Your task to perform on an android device: set an alarm Image 0: 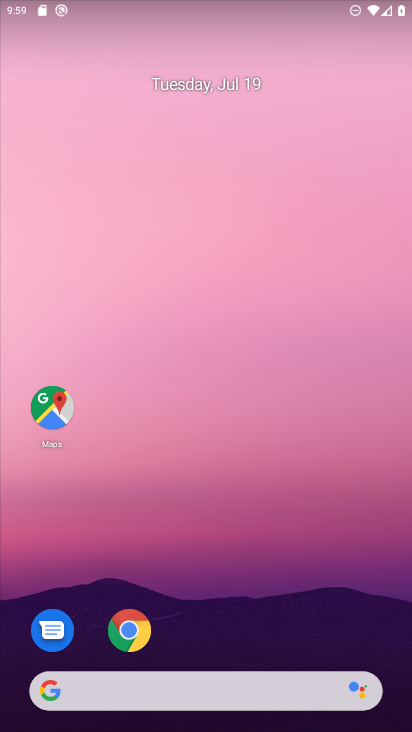
Step 0: drag from (163, 672) to (265, 148)
Your task to perform on an android device: set an alarm Image 1: 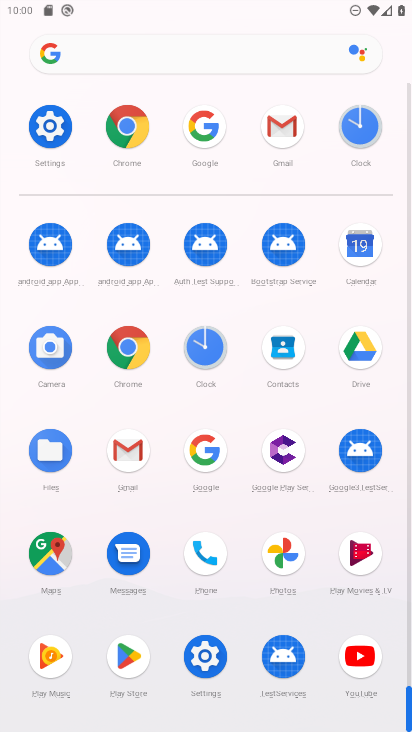
Step 1: click (355, 145)
Your task to perform on an android device: set an alarm Image 2: 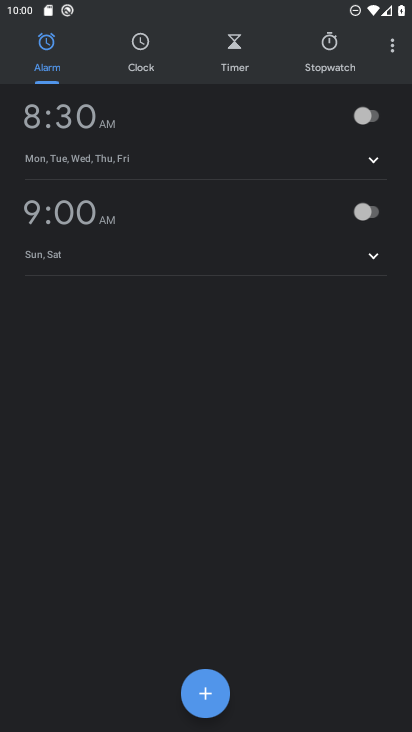
Step 2: click (216, 697)
Your task to perform on an android device: set an alarm Image 3: 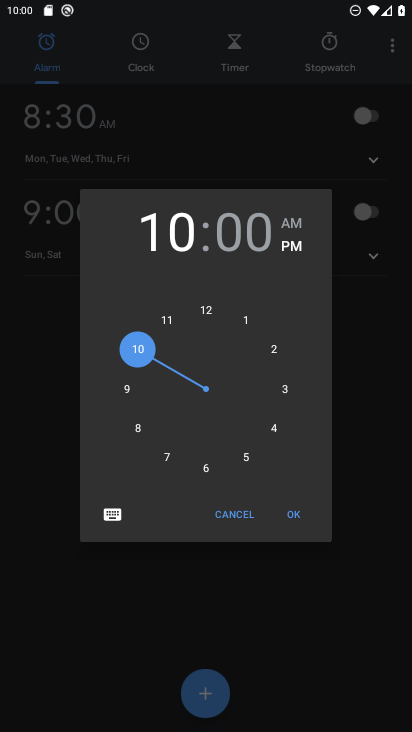
Step 3: click (295, 520)
Your task to perform on an android device: set an alarm Image 4: 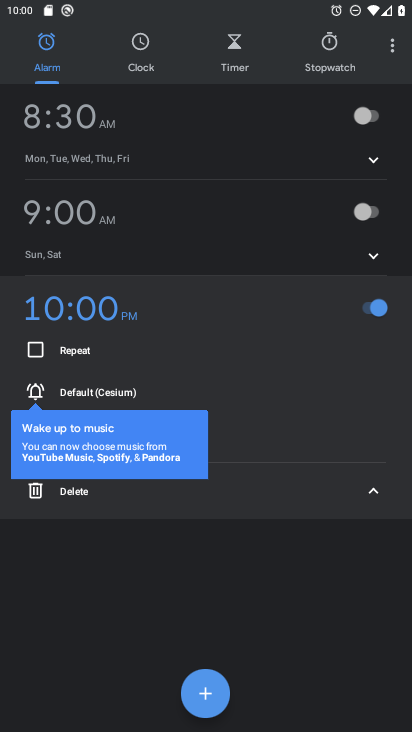
Step 4: task complete